Your task to perform on an android device: Turn off the flashlight Image 0: 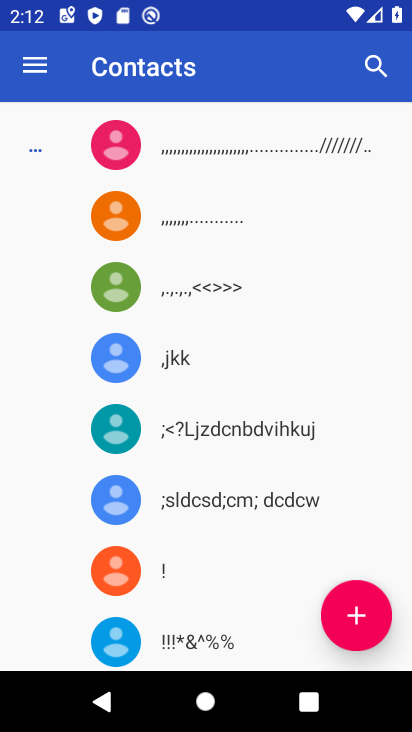
Step 0: task impossible